Your task to perform on an android device: turn on location history Image 0: 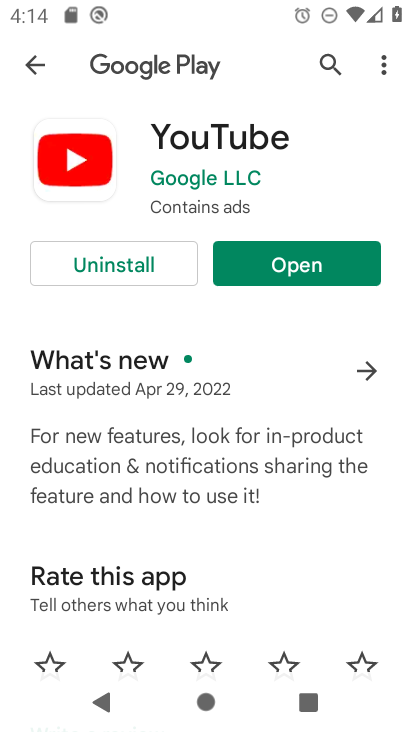
Step 0: press home button
Your task to perform on an android device: turn on location history Image 1: 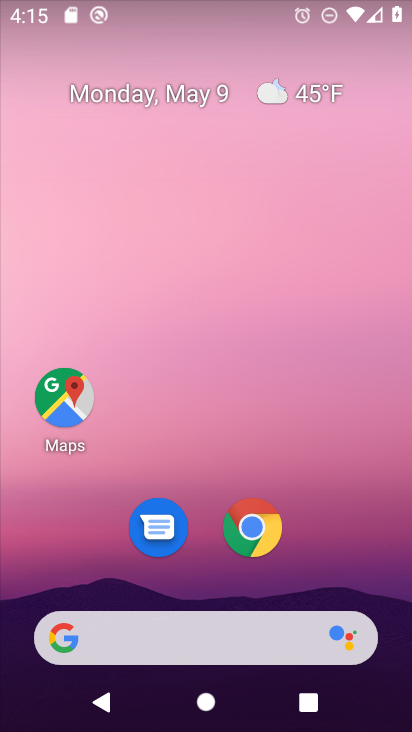
Step 1: drag from (347, 564) to (234, 73)
Your task to perform on an android device: turn on location history Image 2: 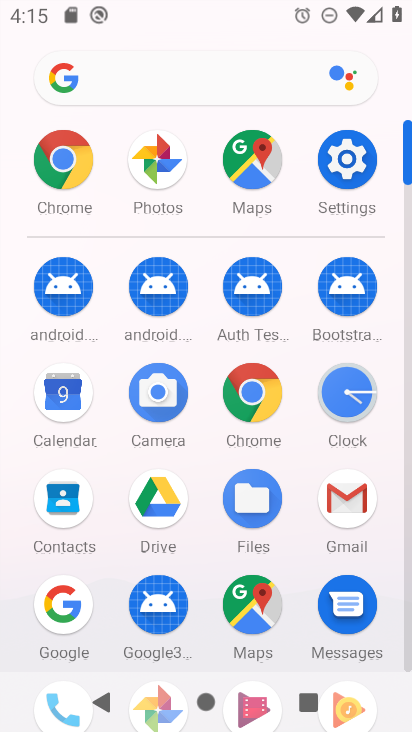
Step 2: click (263, 608)
Your task to perform on an android device: turn on location history Image 3: 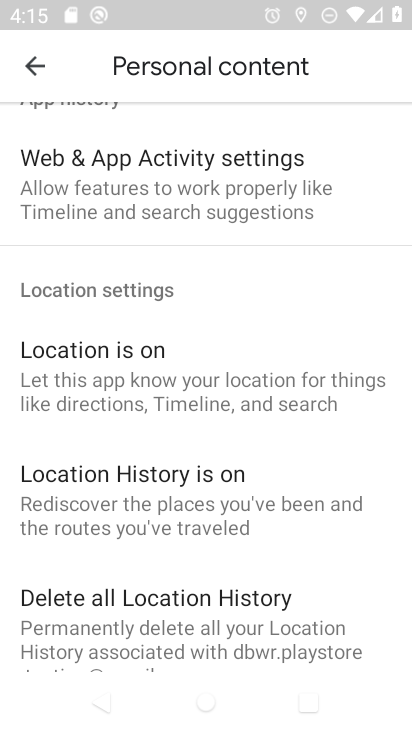
Step 3: click (239, 522)
Your task to perform on an android device: turn on location history Image 4: 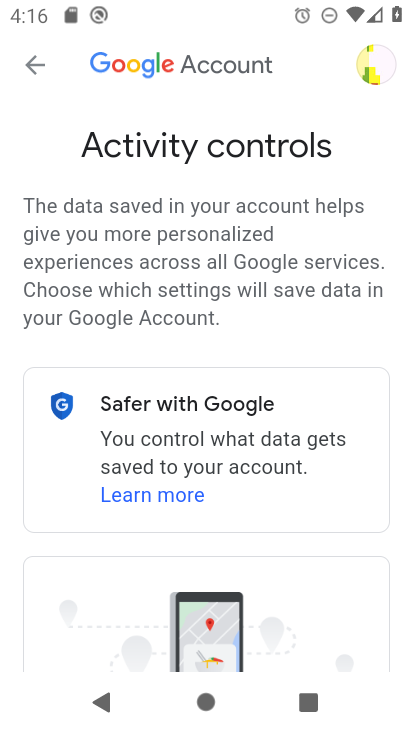
Step 4: task complete